Your task to perform on an android device: Search for pizza restaurants on Maps Image 0: 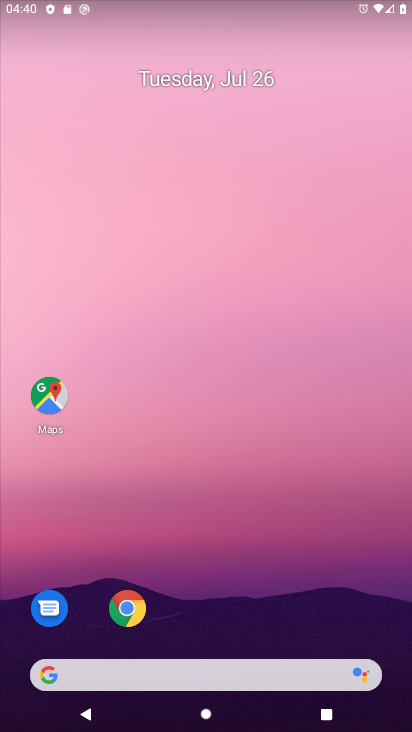
Step 0: click (55, 395)
Your task to perform on an android device: Search for pizza restaurants on Maps Image 1: 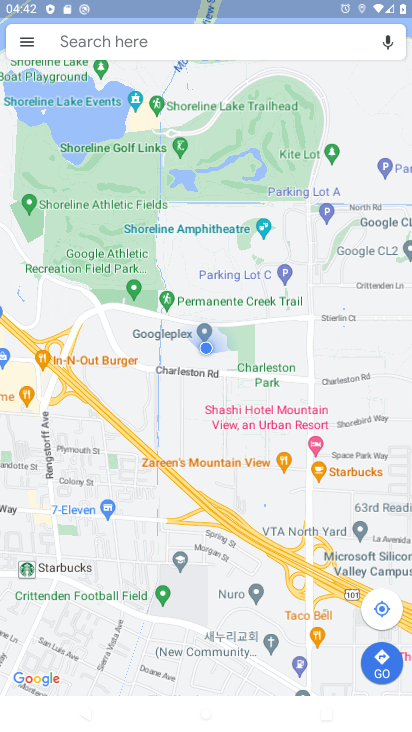
Step 1: click (127, 42)
Your task to perform on an android device: Search for pizza restaurants on Maps Image 2: 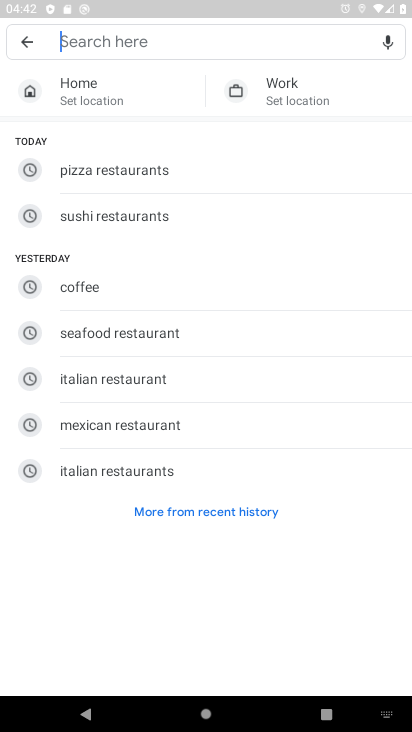
Step 2: type "pizza restaurants"
Your task to perform on an android device: Search for pizza restaurants on Maps Image 3: 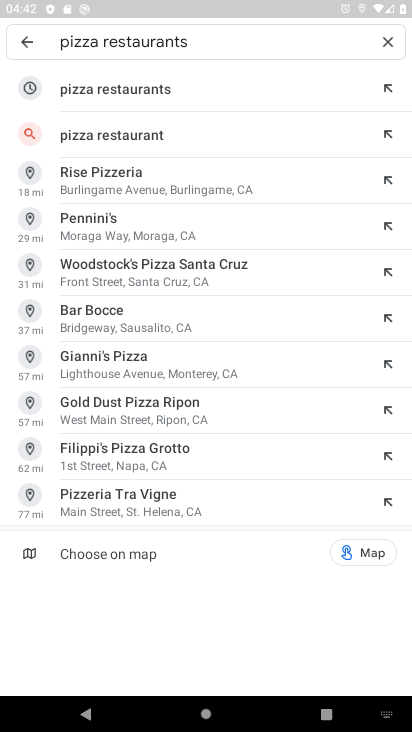
Step 3: click (171, 134)
Your task to perform on an android device: Search for pizza restaurants on Maps Image 4: 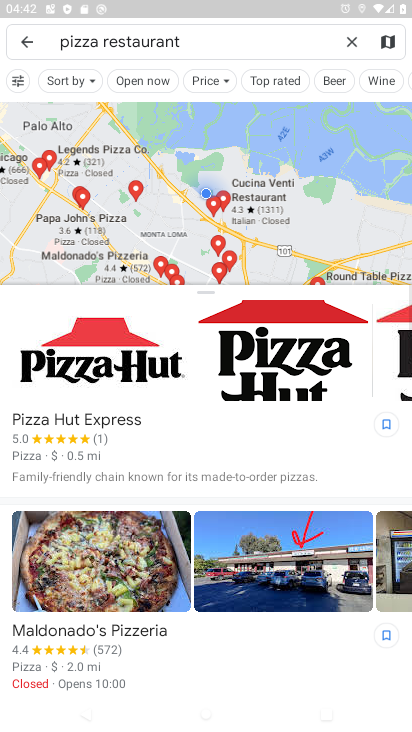
Step 4: task complete